Your task to perform on an android device: Is it going to rain today? Image 0: 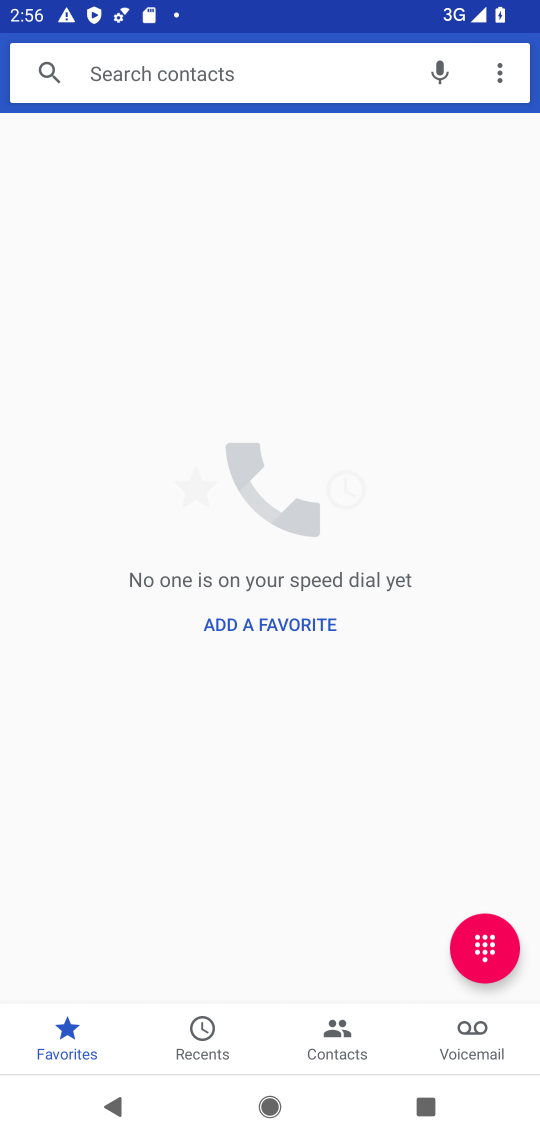
Step 0: press home button
Your task to perform on an android device: Is it going to rain today? Image 1: 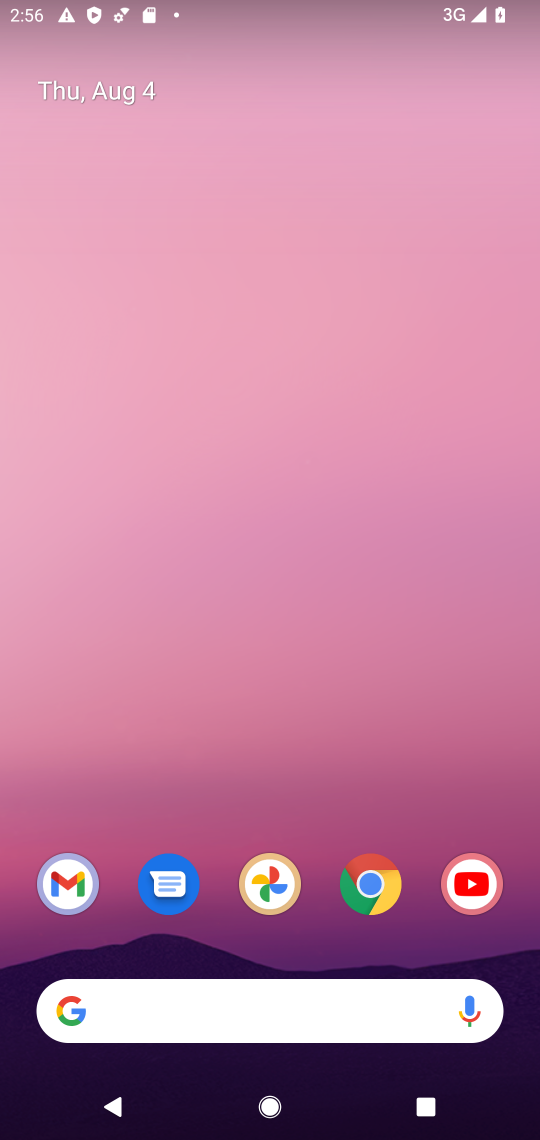
Step 1: drag from (315, 823) to (341, 198)
Your task to perform on an android device: Is it going to rain today? Image 2: 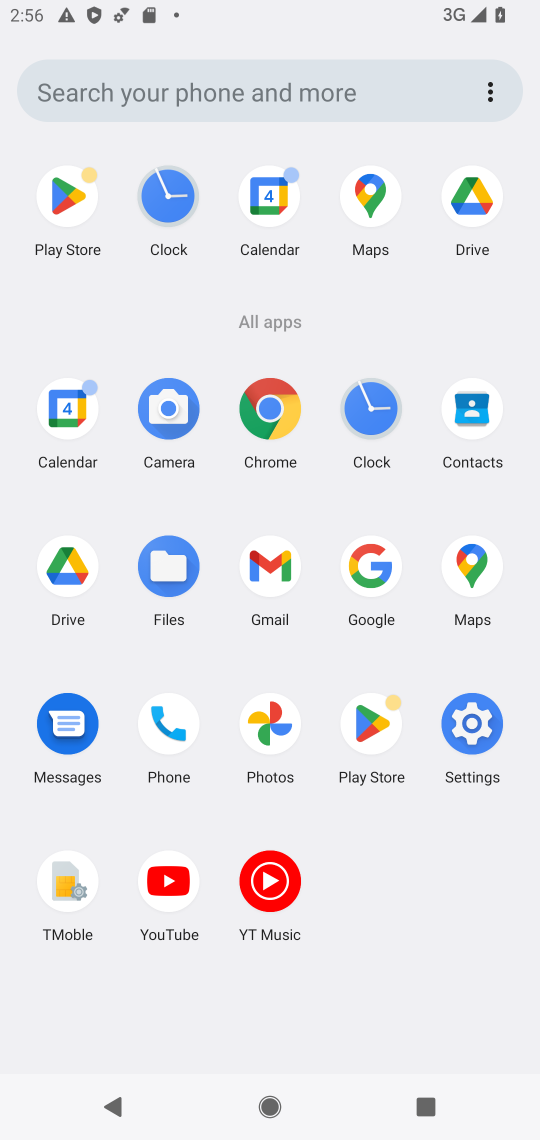
Step 2: press home button
Your task to perform on an android device: Is it going to rain today? Image 3: 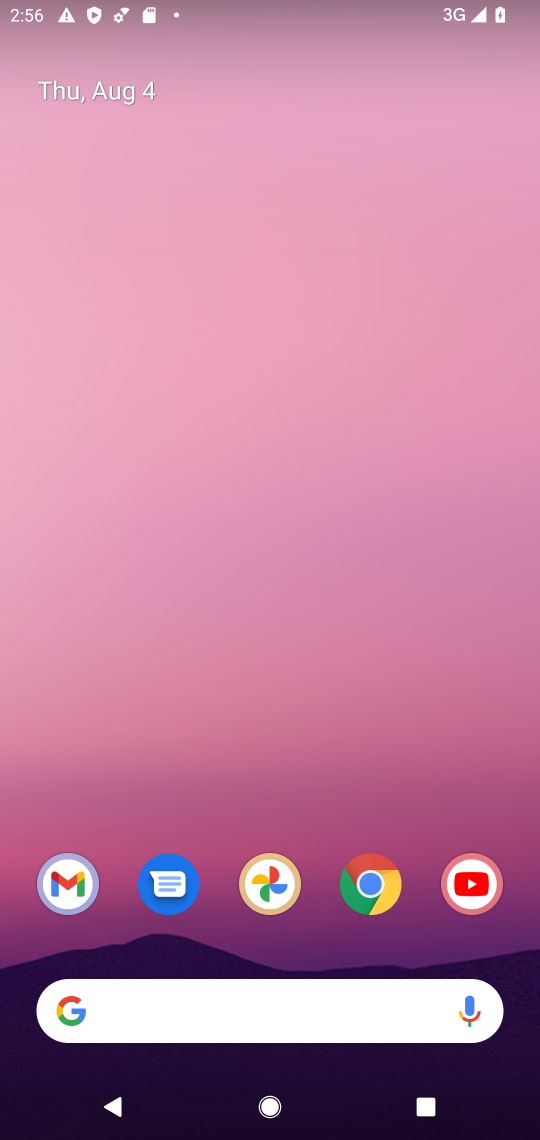
Step 3: click (301, 1011)
Your task to perform on an android device: Is it going to rain today? Image 4: 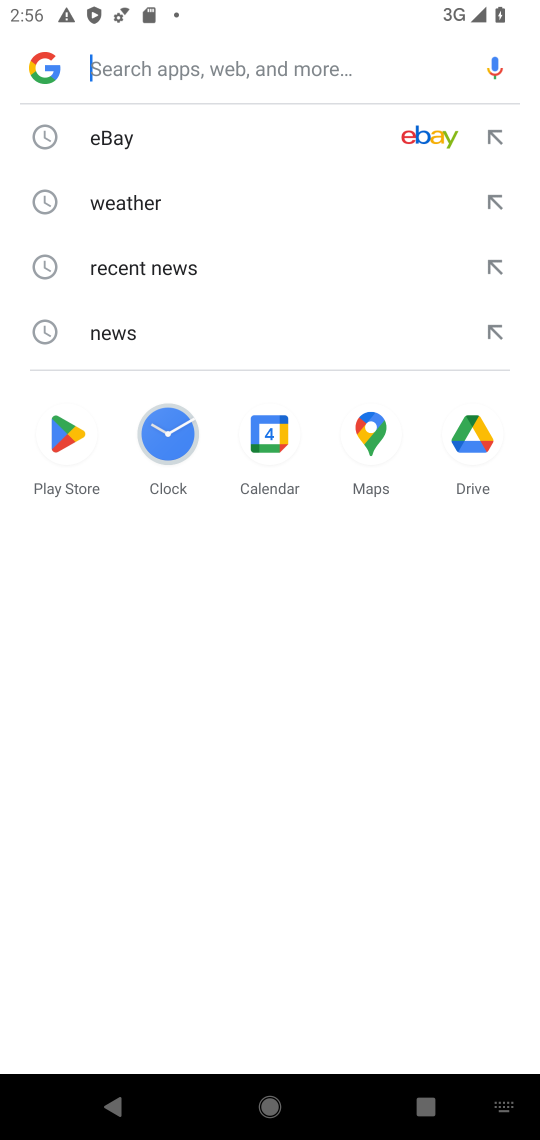
Step 4: click (140, 201)
Your task to perform on an android device: Is it going to rain today? Image 5: 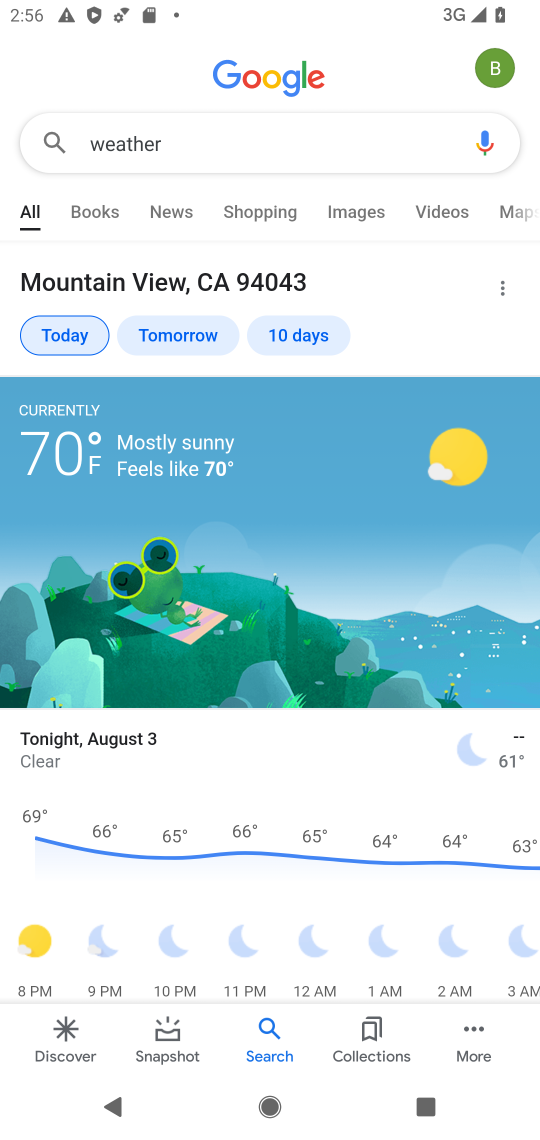
Step 5: task complete